Your task to perform on an android device: change the clock style Image 0: 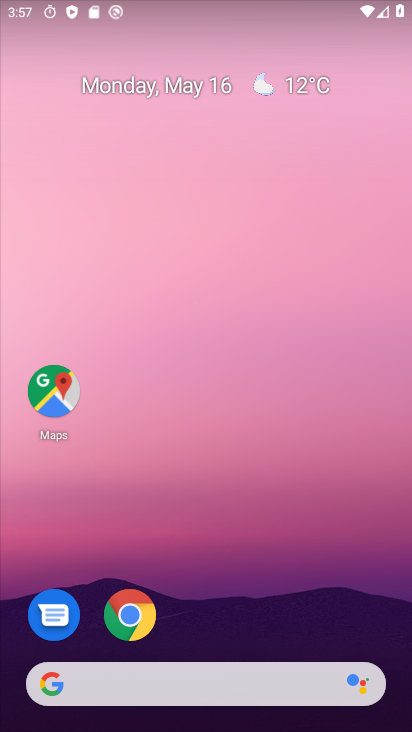
Step 0: drag from (178, 20) to (253, 40)
Your task to perform on an android device: change the clock style Image 1: 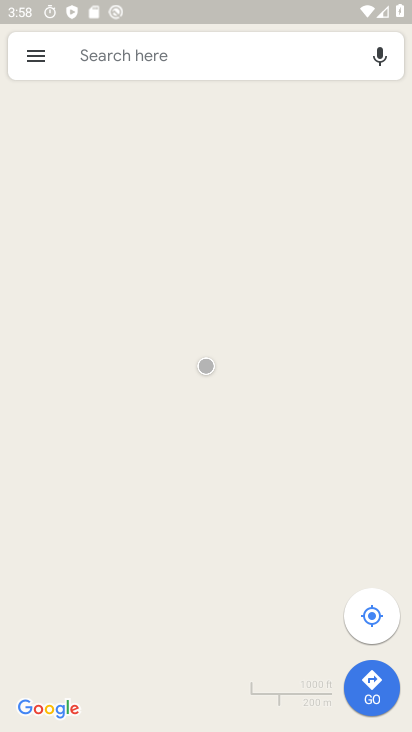
Step 1: press back button
Your task to perform on an android device: change the clock style Image 2: 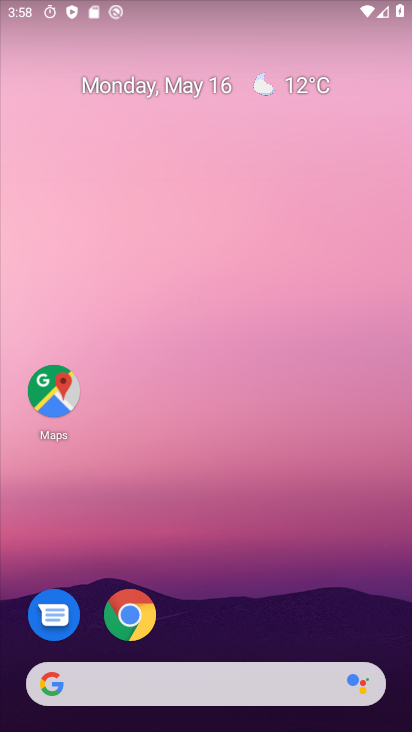
Step 2: drag from (317, 660) to (162, 48)
Your task to perform on an android device: change the clock style Image 3: 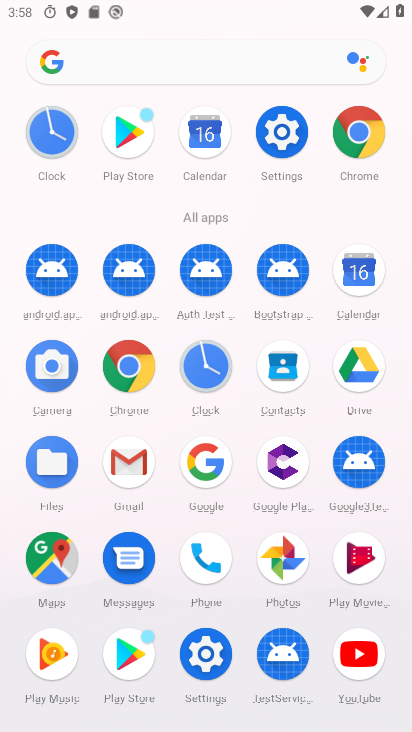
Step 3: drag from (229, 359) to (183, 18)
Your task to perform on an android device: change the clock style Image 4: 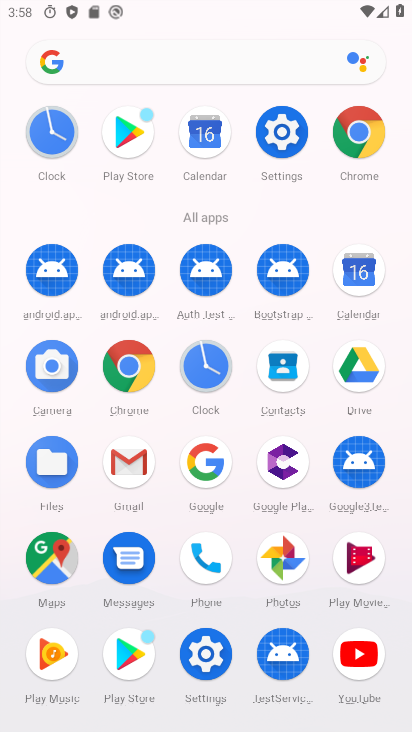
Step 4: click (207, 369)
Your task to perform on an android device: change the clock style Image 5: 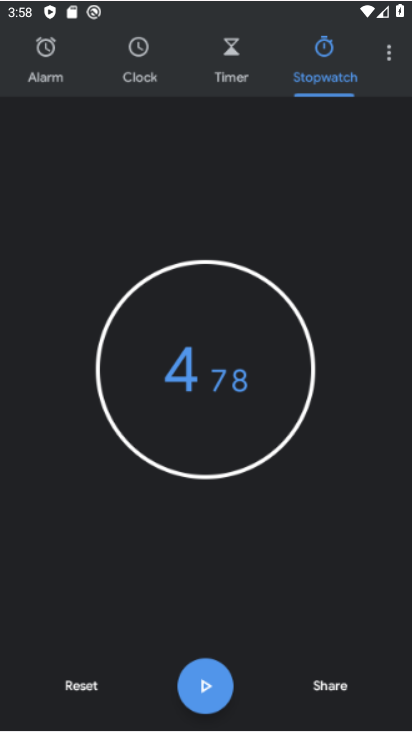
Step 5: click (209, 366)
Your task to perform on an android device: change the clock style Image 6: 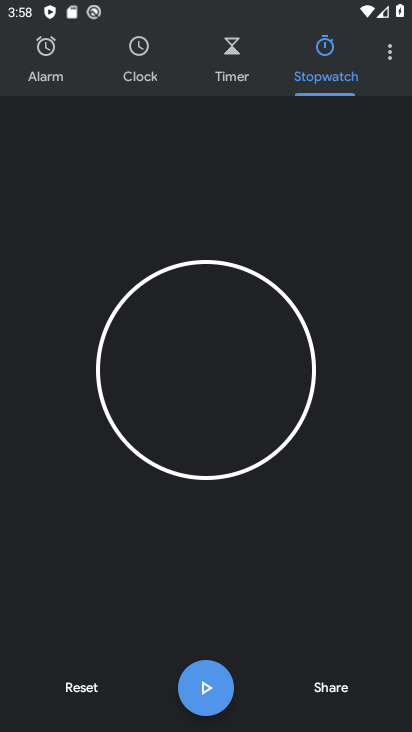
Step 6: click (211, 367)
Your task to perform on an android device: change the clock style Image 7: 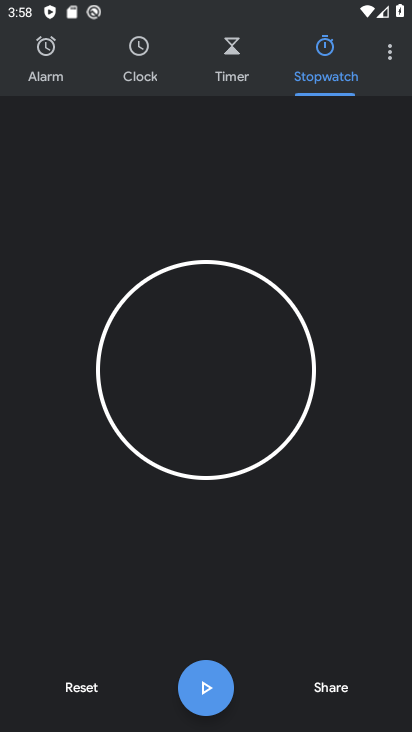
Step 7: click (391, 58)
Your task to perform on an android device: change the clock style Image 8: 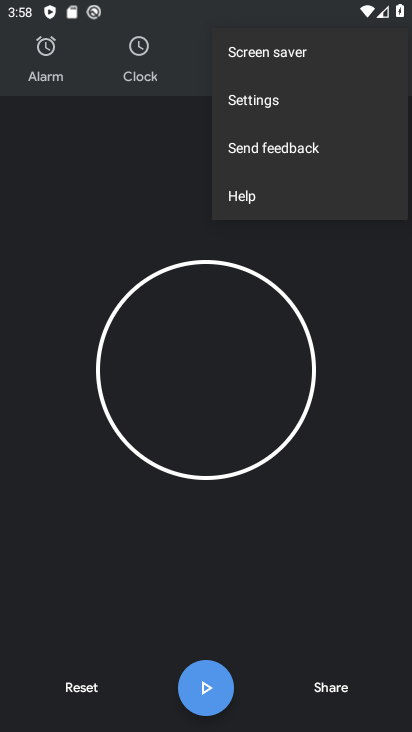
Step 8: click (262, 109)
Your task to perform on an android device: change the clock style Image 9: 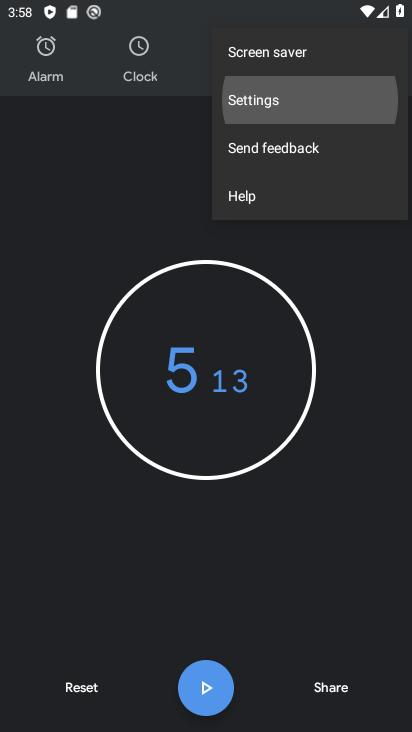
Step 9: click (262, 109)
Your task to perform on an android device: change the clock style Image 10: 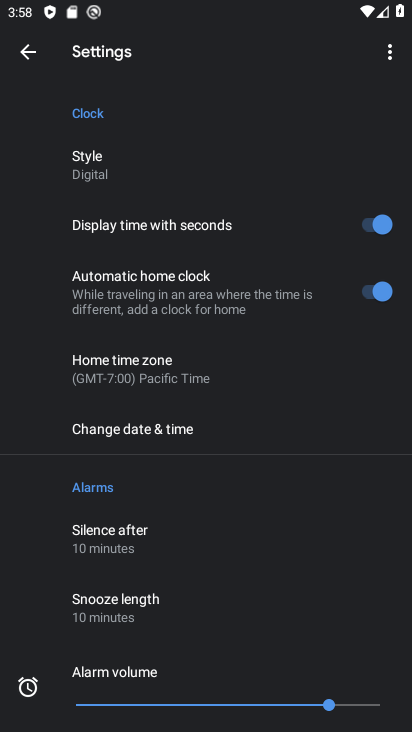
Step 10: click (204, 170)
Your task to perform on an android device: change the clock style Image 11: 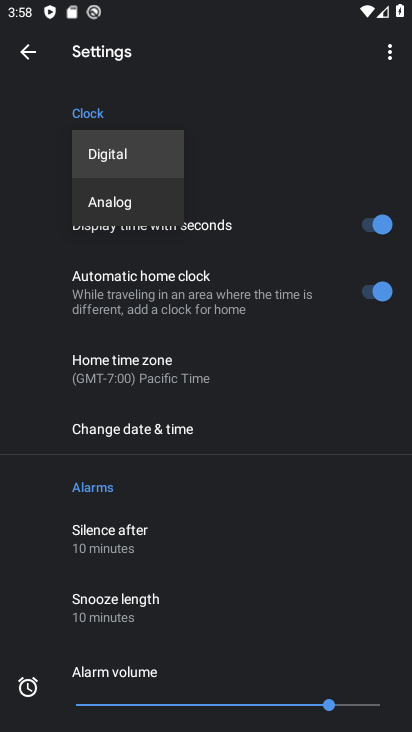
Step 11: click (130, 203)
Your task to perform on an android device: change the clock style Image 12: 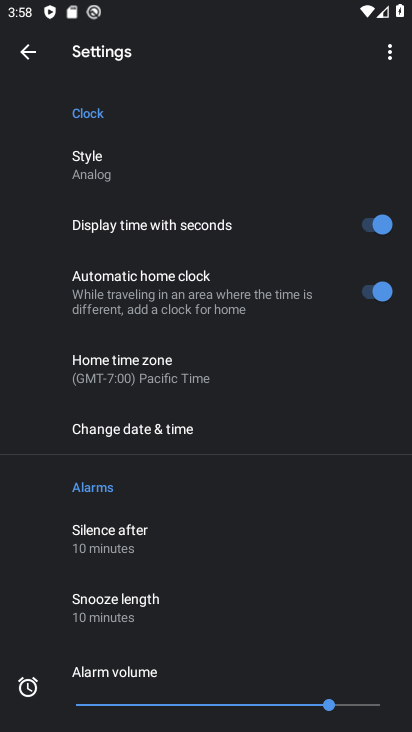
Step 12: task complete